Your task to perform on an android device: delete a single message in the gmail app Image 0: 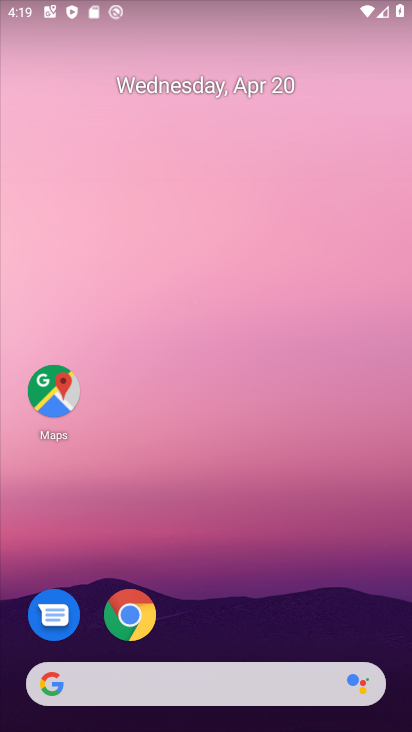
Step 0: drag from (212, 624) to (273, 126)
Your task to perform on an android device: delete a single message in the gmail app Image 1: 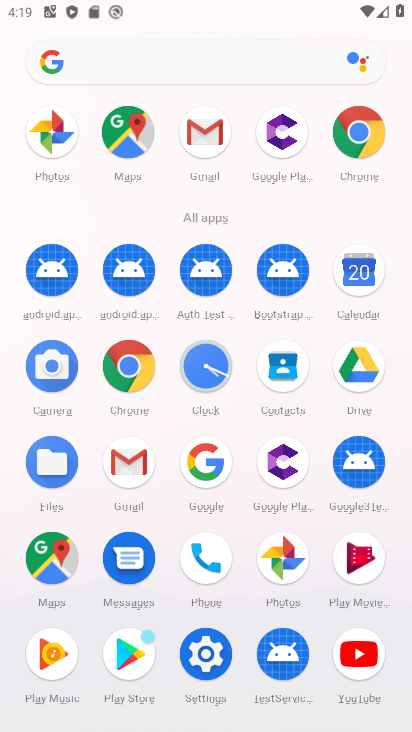
Step 1: click (123, 466)
Your task to perform on an android device: delete a single message in the gmail app Image 2: 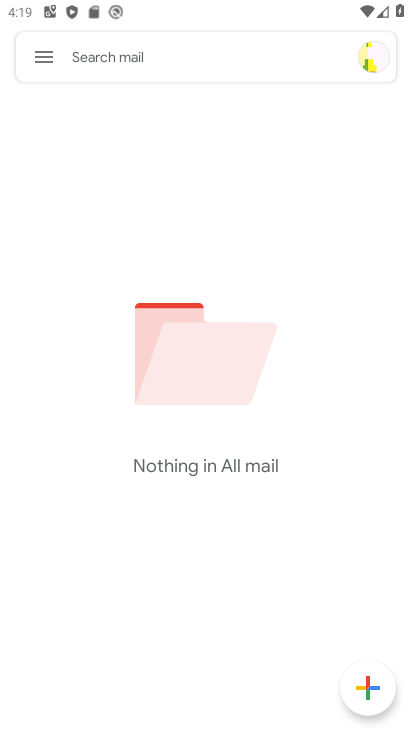
Step 2: task complete